Your task to perform on an android device: Open calendar and show me the first week of next month Image 0: 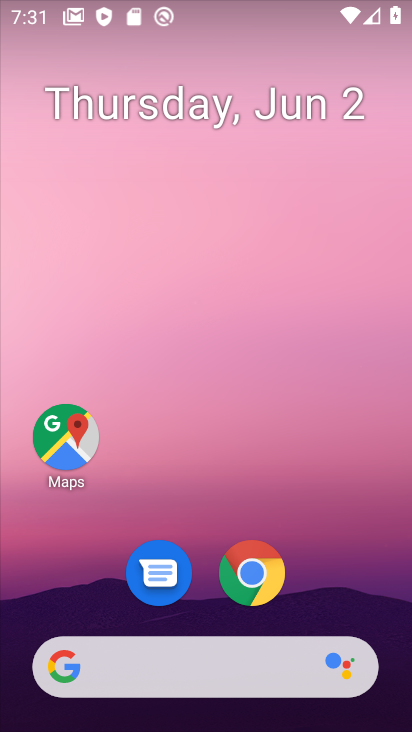
Step 0: drag from (223, 663) to (361, 184)
Your task to perform on an android device: Open calendar and show me the first week of next month Image 1: 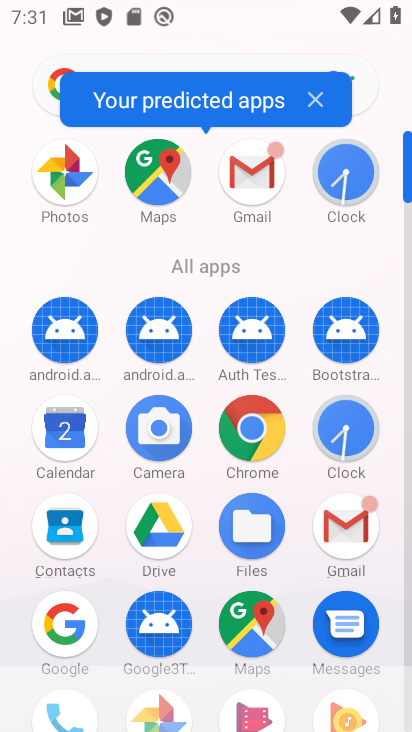
Step 1: click (71, 435)
Your task to perform on an android device: Open calendar and show me the first week of next month Image 2: 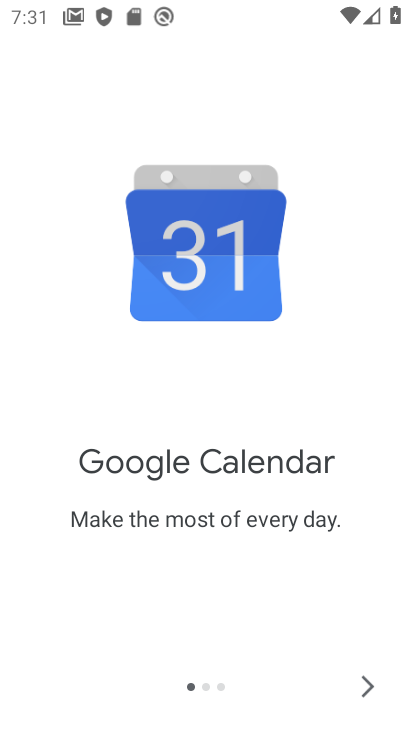
Step 2: click (367, 682)
Your task to perform on an android device: Open calendar and show me the first week of next month Image 3: 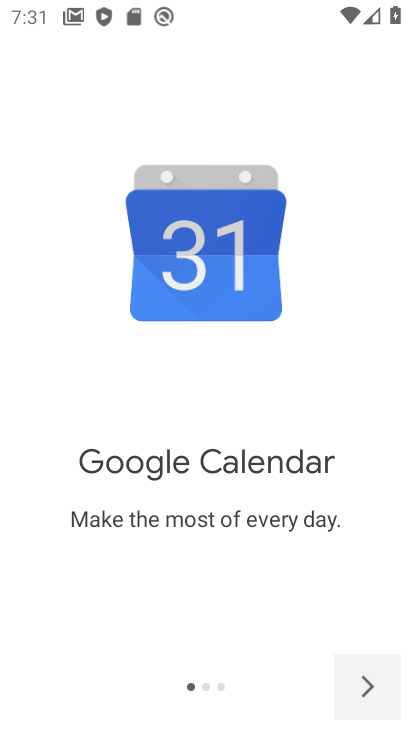
Step 3: click (367, 682)
Your task to perform on an android device: Open calendar and show me the first week of next month Image 4: 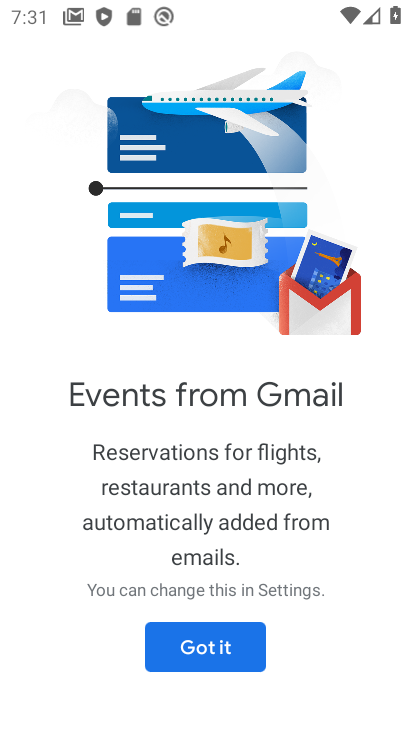
Step 4: click (203, 649)
Your task to perform on an android device: Open calendar and show me the first week of next month Image 5: 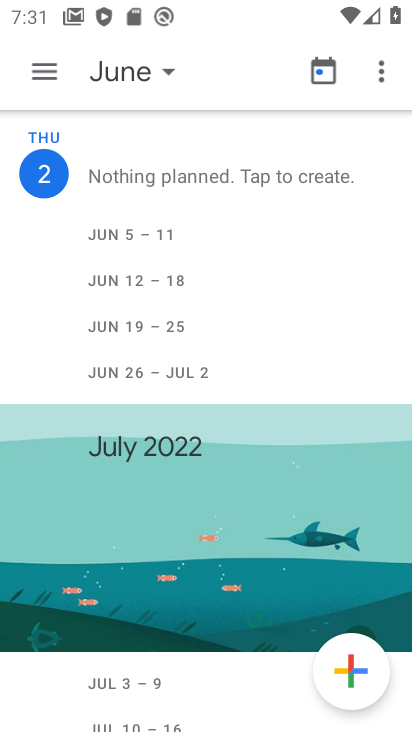
Step 5: click (134, 72)
Your task to perform on an android device: Open calendar and show me the first week of next month Image 6: 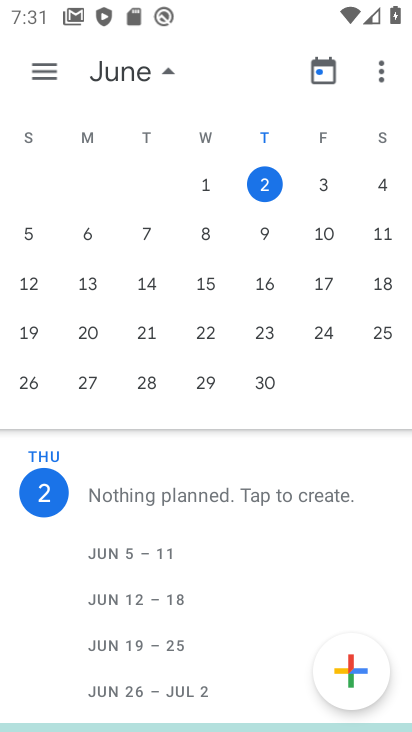
Step 6: drag from (345, 263) to (2, 296)
Your task to perform on an android device: Open calendar and show me the first week of next month Image 7: 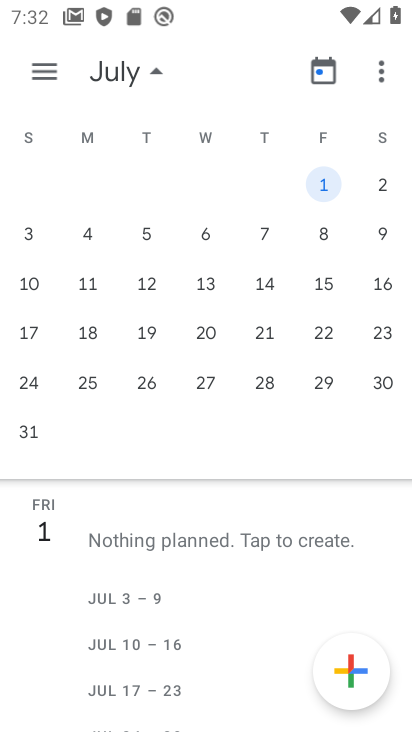
Step 7: click (25, 238)
Your task to perform on an android device: Open calendar and show me the first week of next month Image 8: 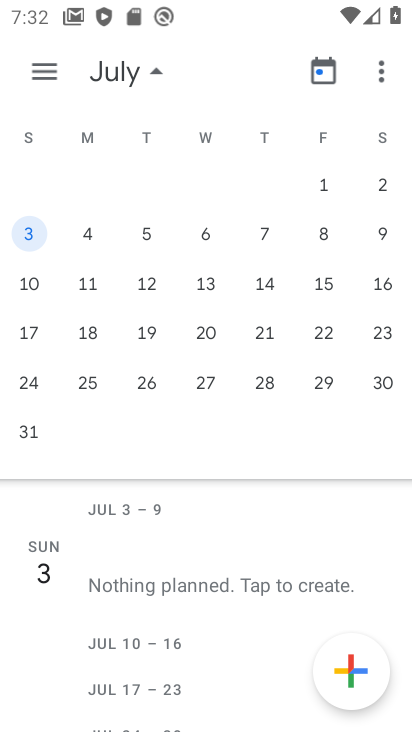
Step 8: click (51, 73)
Your task to perform on an android device: Open calendar and show me the first week of next month Image 9: 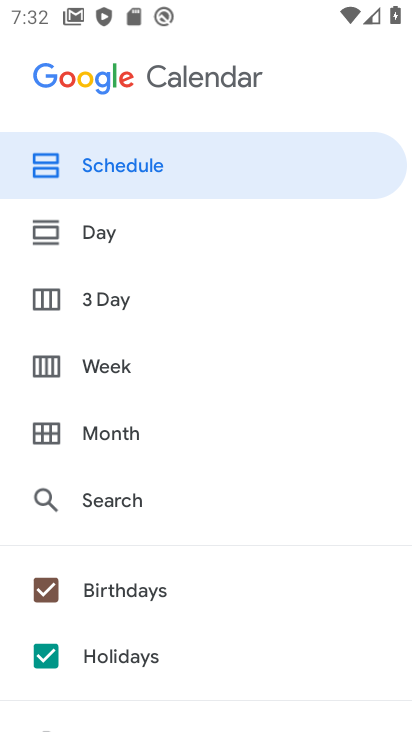
Step 9: click (99, 373)
Your task to perform on an android device: Open calendar and show me the first week of next month Image 10: 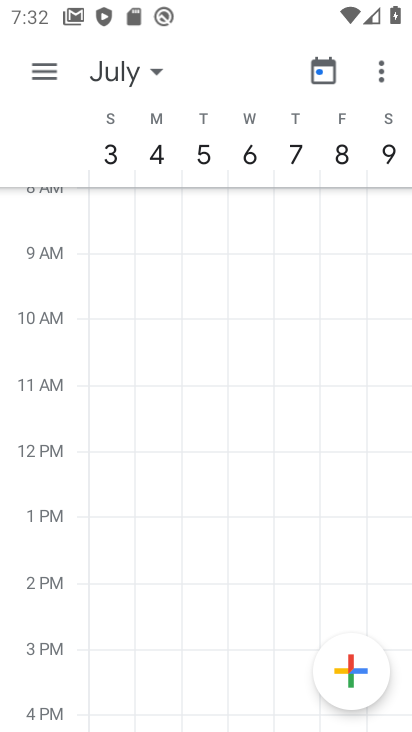
Step 10: task complete